Your task to perform on an android device: What is the news today? Image 0: 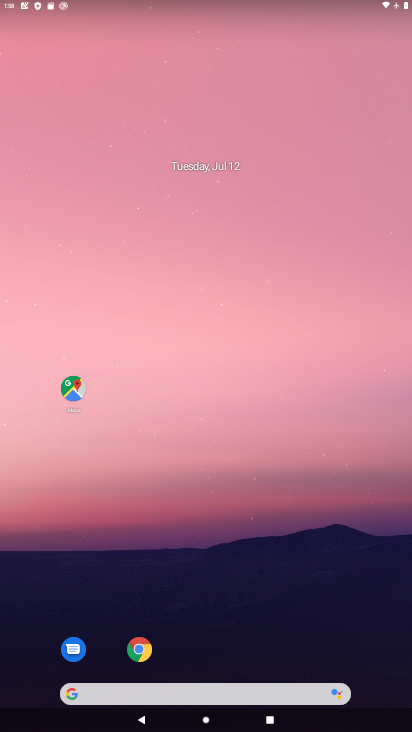
Step 0: drag from (206, 646) to (325, 39)
Your task to perform on an android device: What is the news today? Image 1: 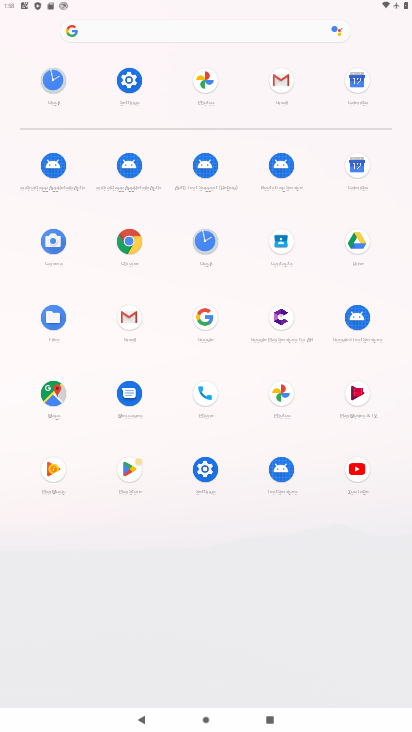
Step 1: click (165, 34)
Your task to perform on an android device: What is the news today? Image 2: 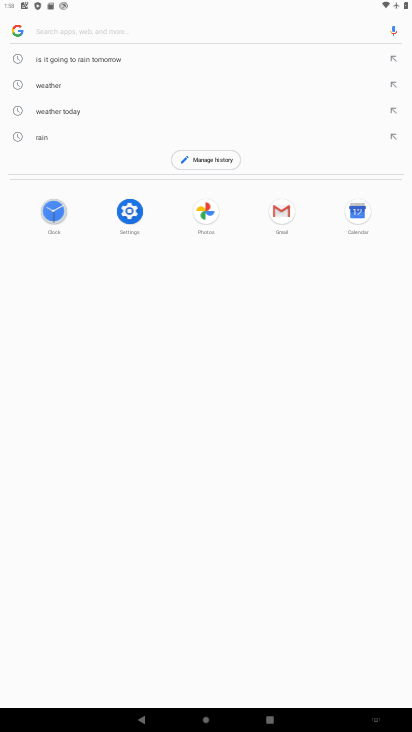
Step 2: click (165, 34)
Your task to perform on an android device: What is the news today? Image 3: 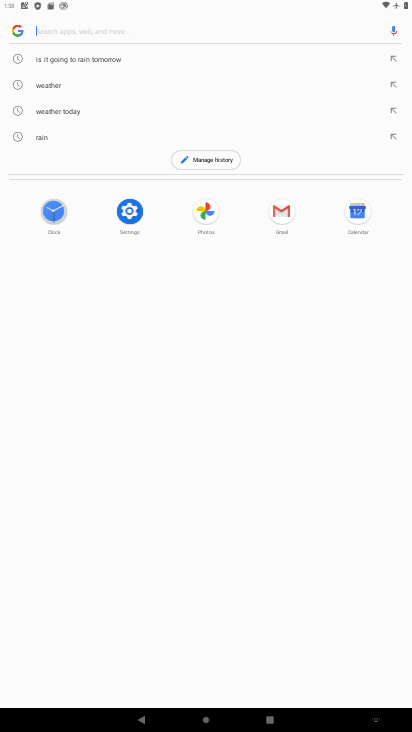
Step 3: click (93, 109)
Your task to perform on an android device: What is the news today? Image 4: 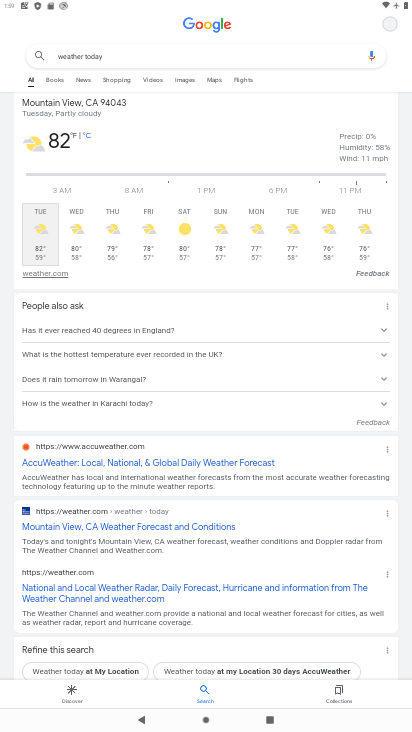
Step 4: task complete